Your task to perform on an android device: Show me popular videos on Youtube Image 0: 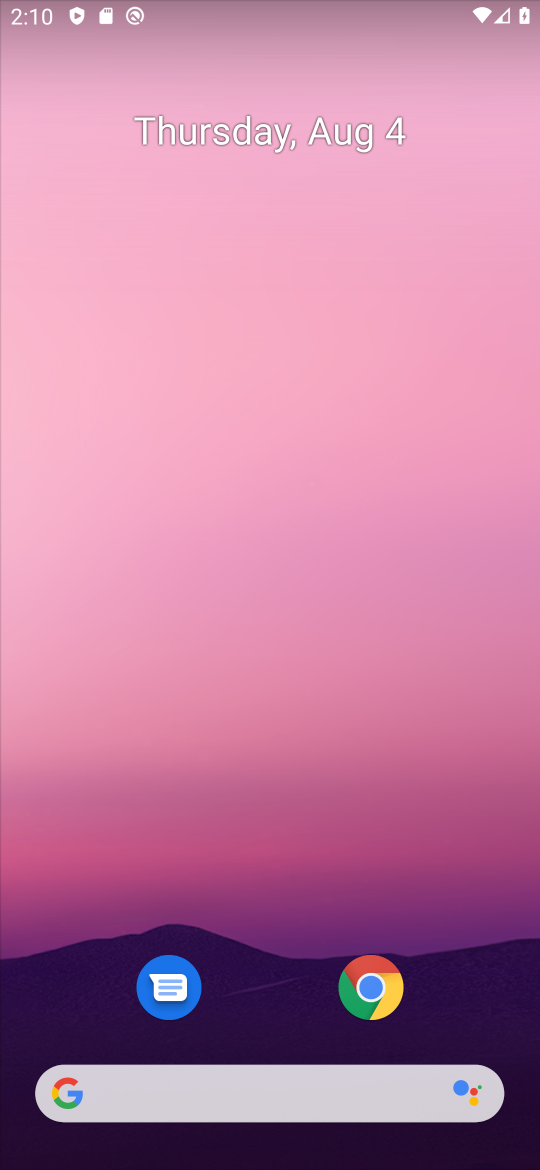
Step 0: drag from (506, 1019) to (191, 85)
Your task to perform on an android device: Show me popular videos on Youtube Image 1: 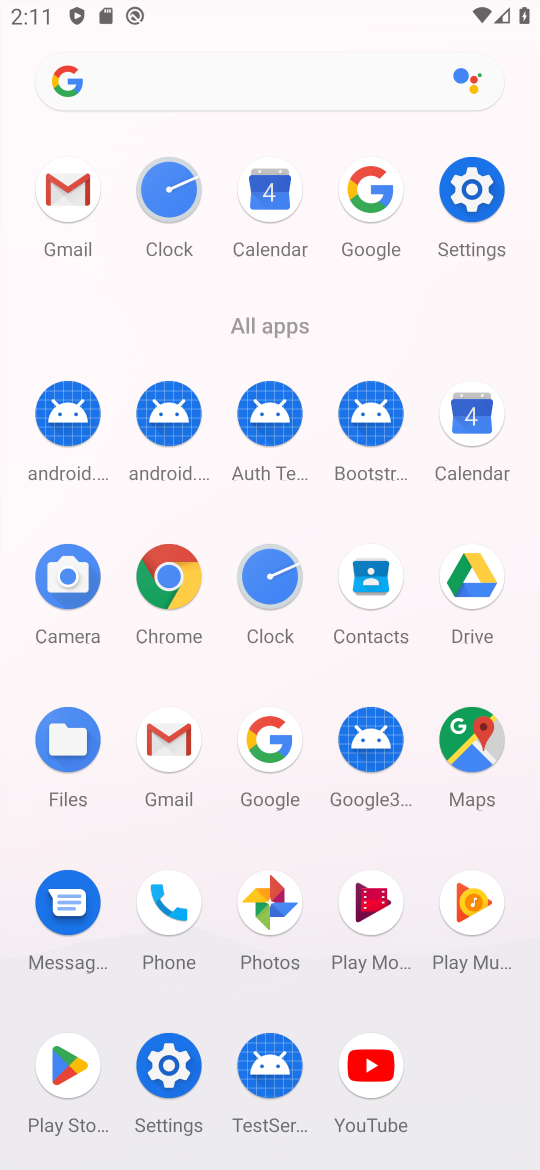
Step 1: click (388, 1089)
Your task to perform on an android device: Show me popular videos on Youtube Image 2: 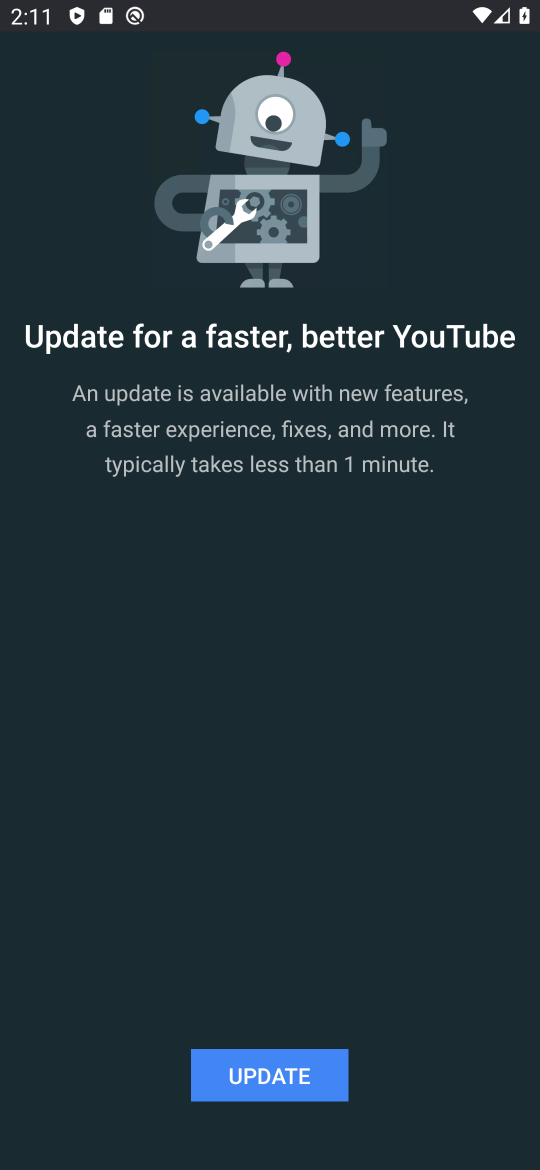
Step 2: task complete